Your task to perform on an android device: Search for Italian restaurants on Maps Image 0: 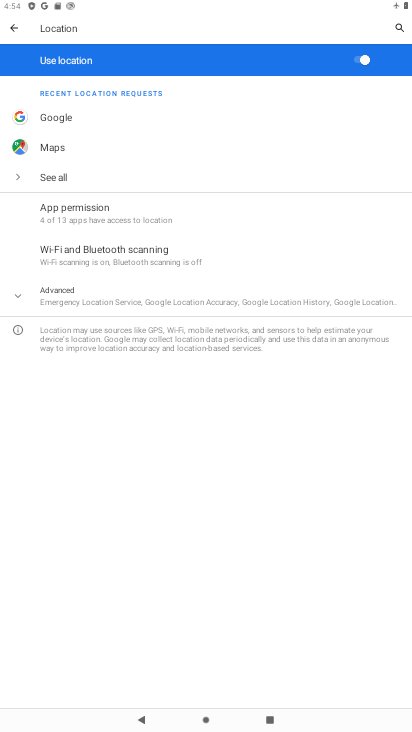
Step 0: press home button
Your task to perform on an android device: Search for Italian restaurants on Maps Image 1: 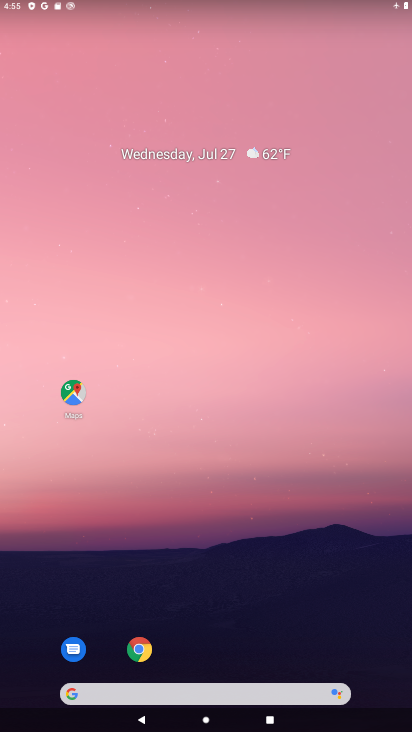
Step 1: click (75, 401)
Your task to perform on an android device: Search for Italian restaurants on Maps Image 2: 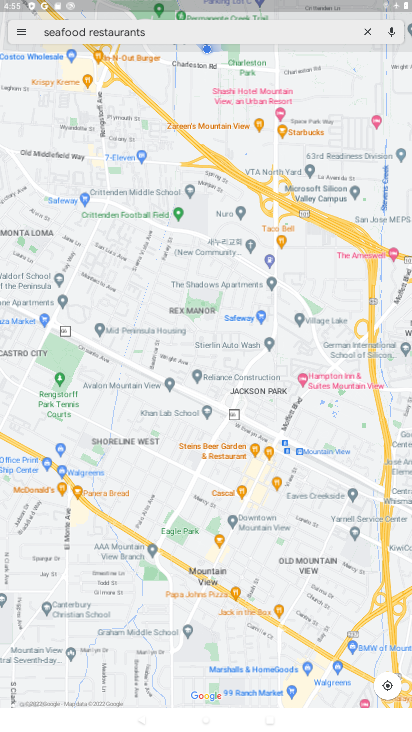
Step 2: click (368, 30)
Your task to perform on an android device: Search for Italian restaurants on Maps Image 3: 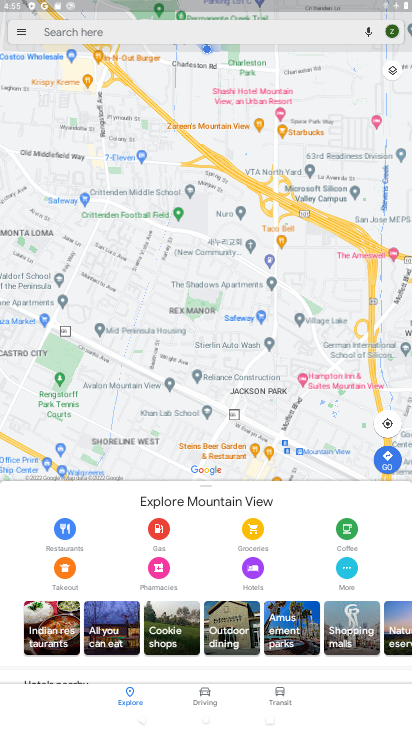
Step 3: type "Italian restaurants "
Your task to perform on an android device: Search for Italian restaurants on Maps Image 4: 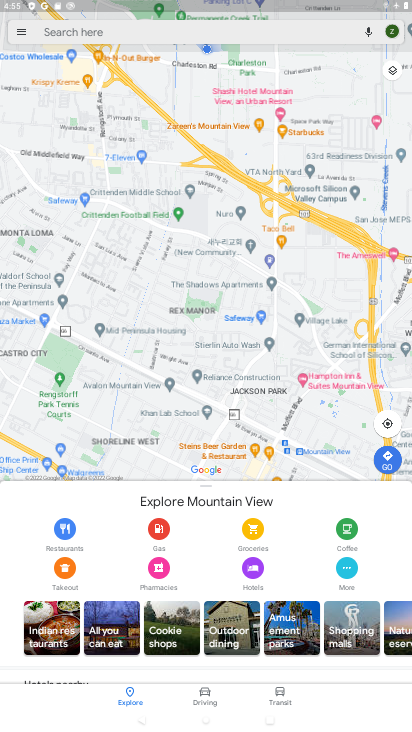
Step 4: press enter
Your task to perform on an android device: Search for Italian restaurants on Maps Image 5: 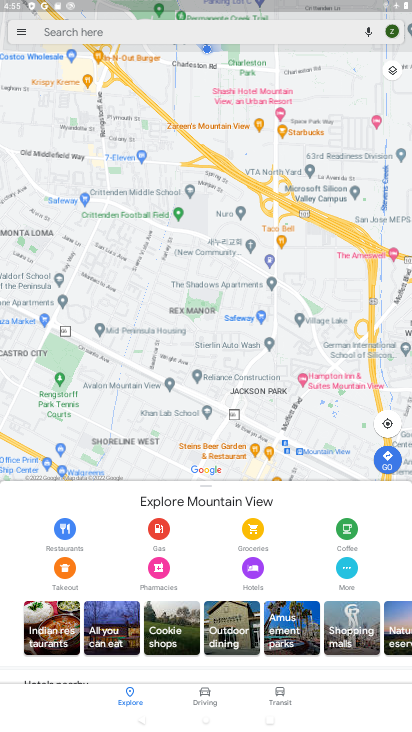
Step 5: click (183, 43)
Your task to perform on an android device: Search for Italian restaurants on Maps Image 6: 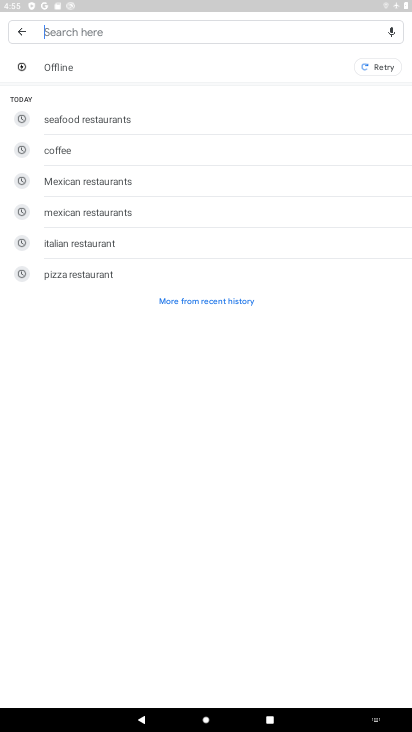
Step 6: type "Italian restaurants "
Your task to perform on an android device: Search for Italian restaurants on Maps Image 7: 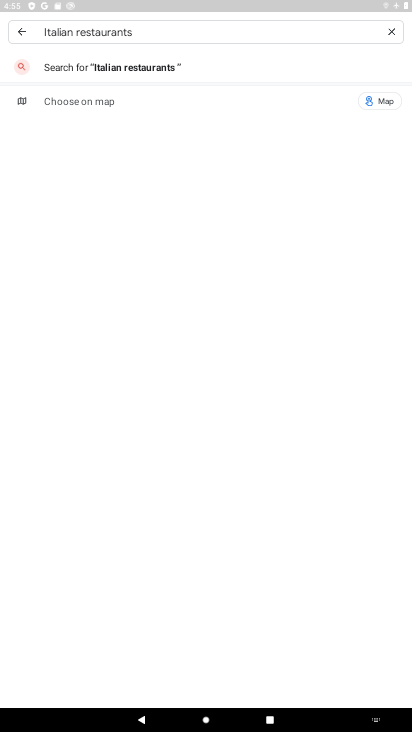
Step 7: press enter
Your task to perform on an android device: Search for Italian restaurants on Maps Image 8: 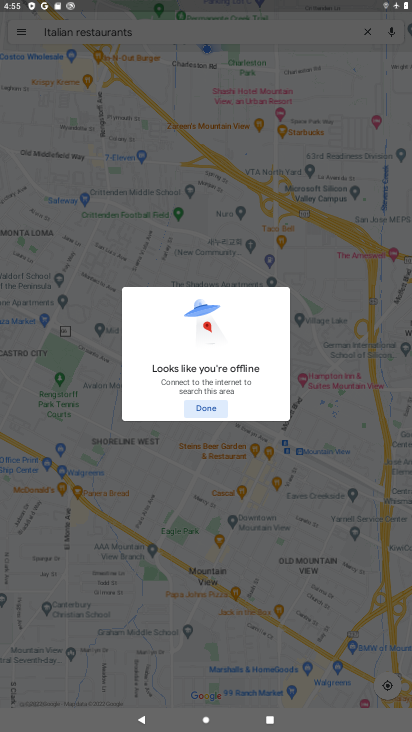
Step 8: click (199, 403)
Your task to perform on an android device: Search for Italian restaurants on Maps Image 9: 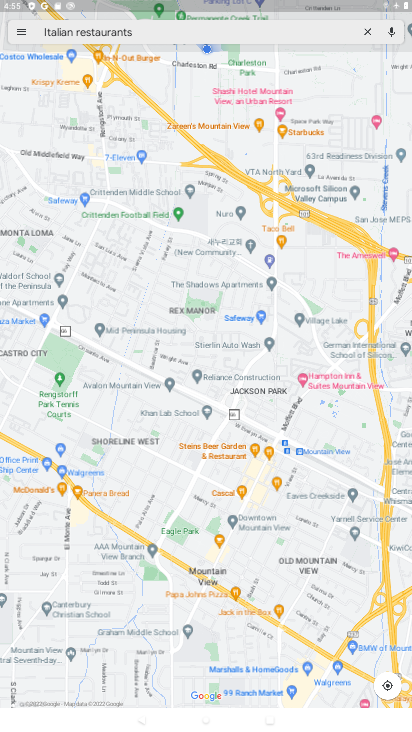
Step 9: drag from (372, 5) to (332, 316)
Your task to perform on an android device: Search for Italian restaurants on Maps Image 10: 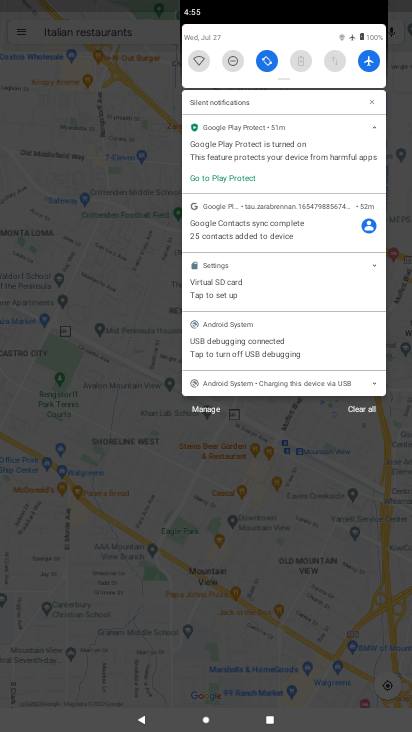
Step 10: click (364, 59)
Your task to perform on an android device: Search for Italian restaurants on Maps Image 11: 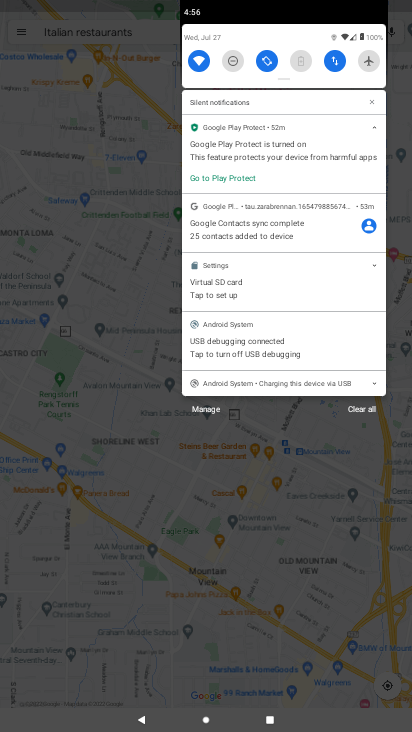
Step 11: press enter
Your task to perform on an android device: Search for Italian restaurants on Maps Image 12: 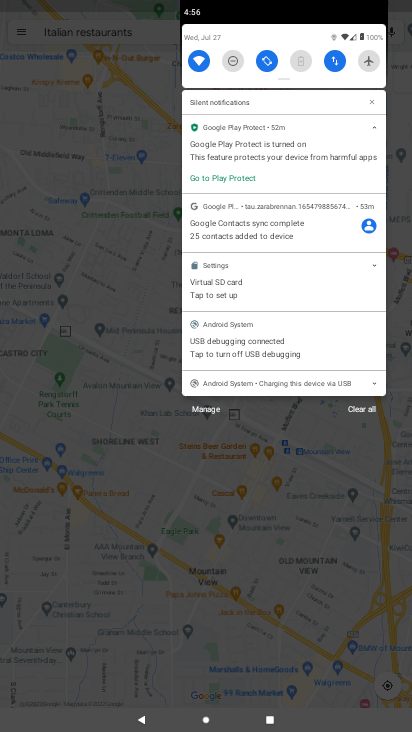
Step 12: press enter
Your task to perform on an android device: Search for Italian restaurants on Maps Image 13: 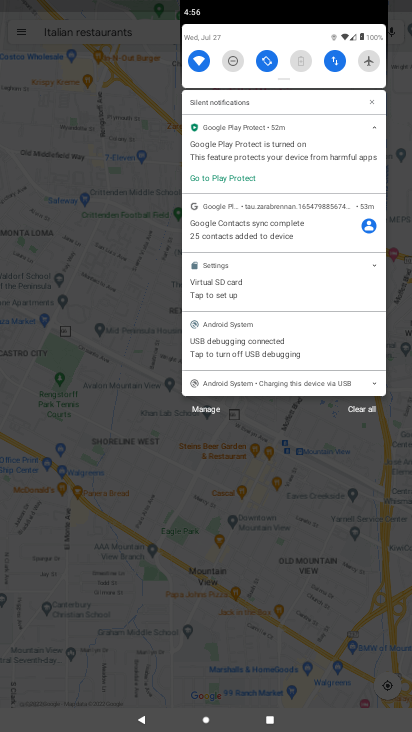
Step 13: task complete